Your task to perform on an android device: Open settings Image 0: 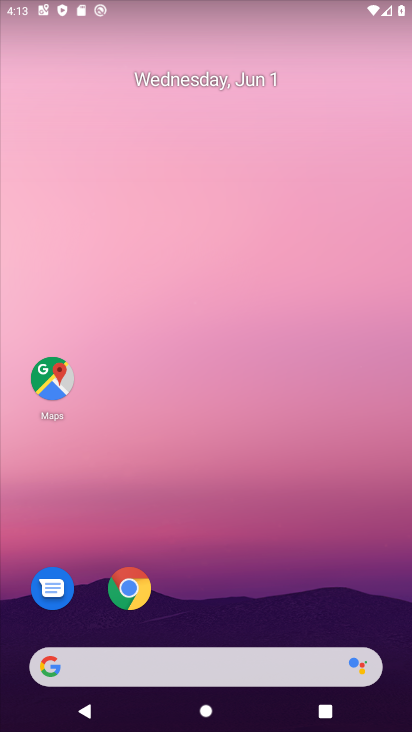
Step 0: drag from (261, 599) to (226, 226)
Your task to perform on an android device: Open settings Image 1: 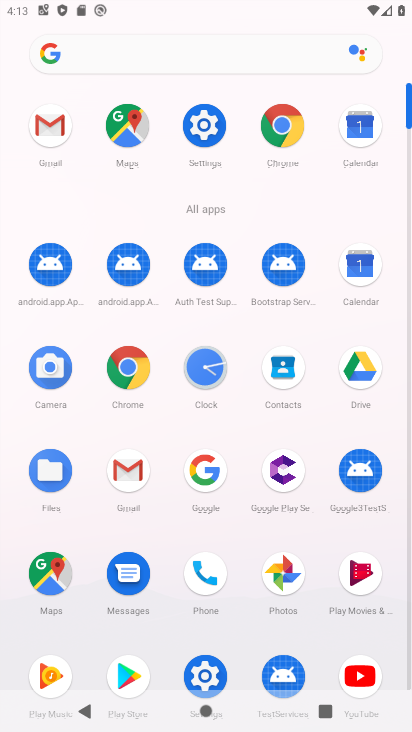
Step 1: click (195, 129)
Your task to perform on an android device: Open settings Image 2: 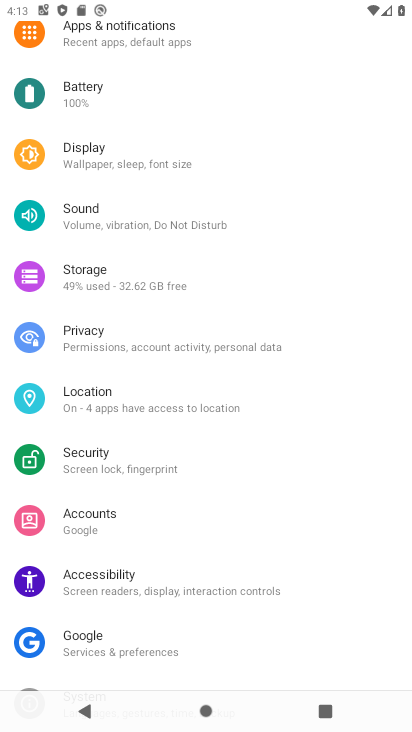
Step 2: task complete